Your task to perform on an android device: Open the Play Movies app and select the watchlist tab. Image 0: 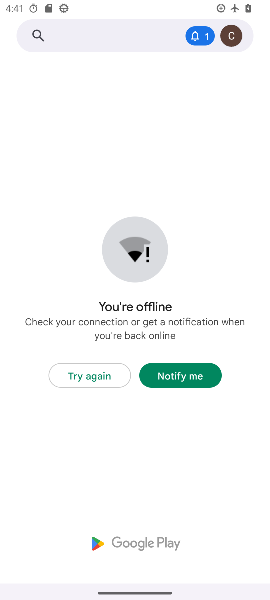
Step 0: press back button
Your task to perform on an android device: Open the Play Movies app and select the watchlist tab. Image 1: 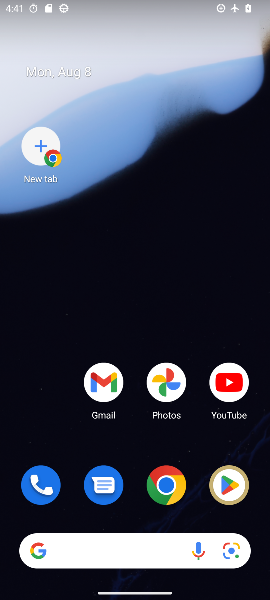
Step 1: task complete